Your task to perform on an android device: choose inbox layout in the gmail app Image 0: 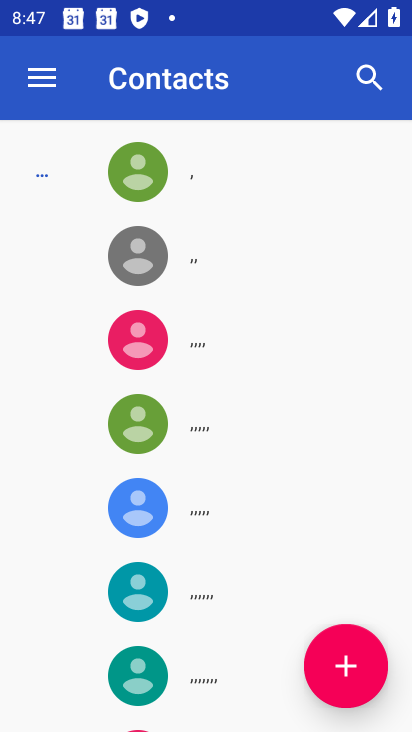
Step 0: press home button
Your task to perform on an android device: choose inbox layout in the gmail app Image 1: 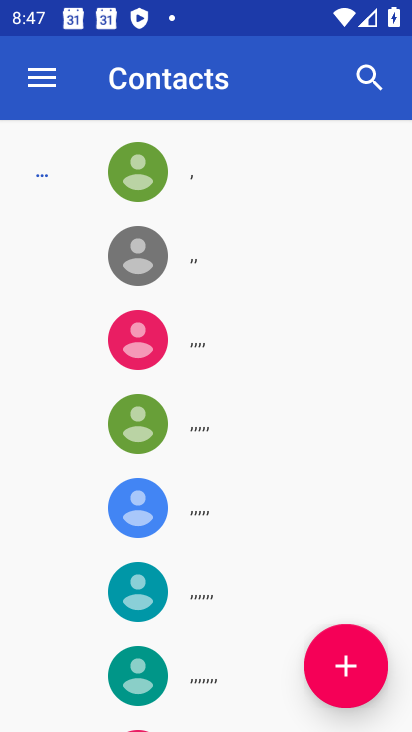
Step 1: press home button
Your task to perform on an android device: choose inbox layout in the gmail app Image 2: 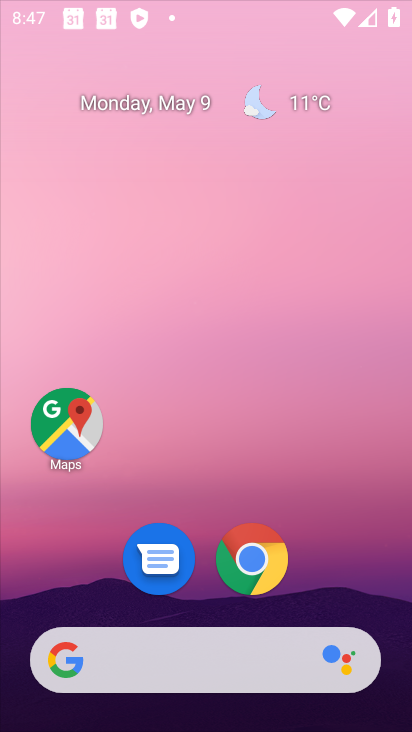
Step 2: press home button
Your task to perform on an android device: choose inbox layout in the gmail app Image 3: 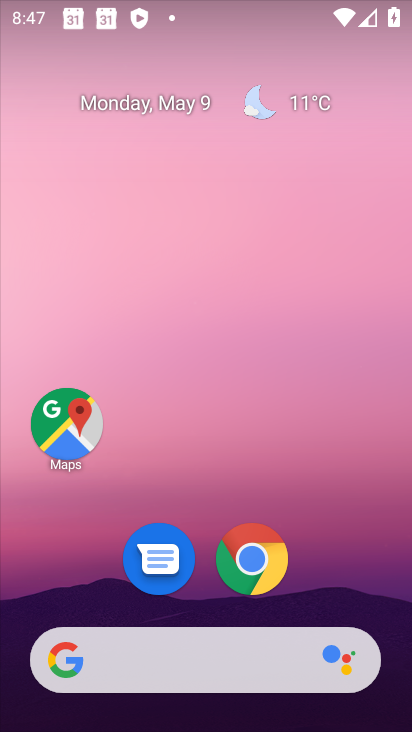
Step 3: drag from (371, 612) to (255, 100)
Your task to perform on an android device: choose inbox layout in the gmail app Image 4: 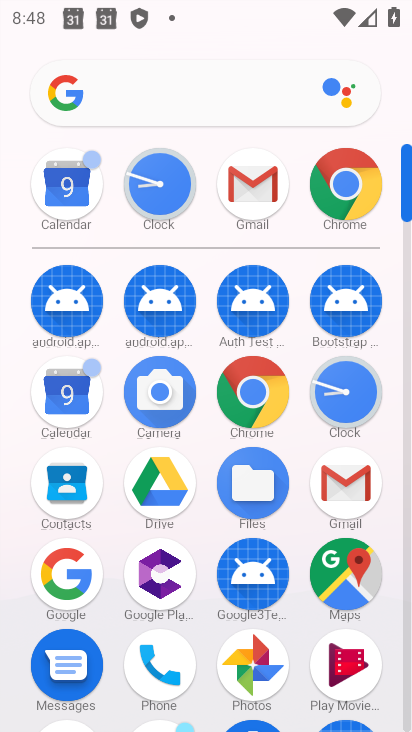
Step 4: click (336, 475)
Your task to perform on an android device: choose inbox layout in the gmail app Image 5: 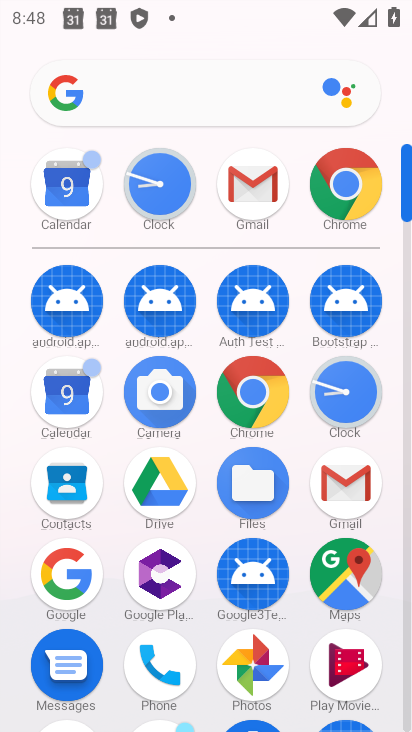
Step 5: click (336, 475)
Your task to perform on an android device: choose inbox layout in the gmail app Image 6: 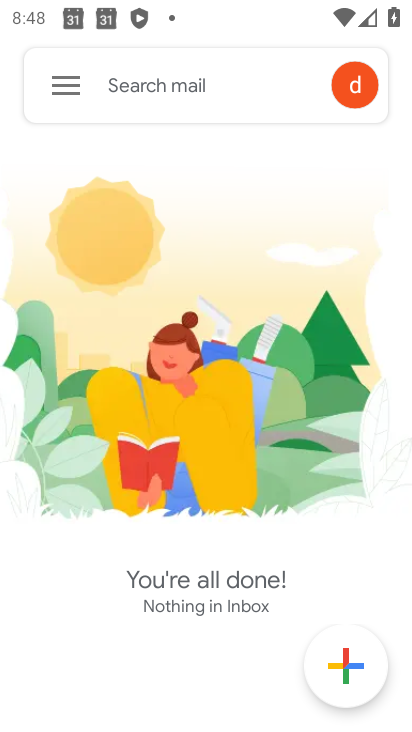
Step 6: click (72, 90)
Your task to perform on an android device: choose inbox layout in the gmail app Image 7: 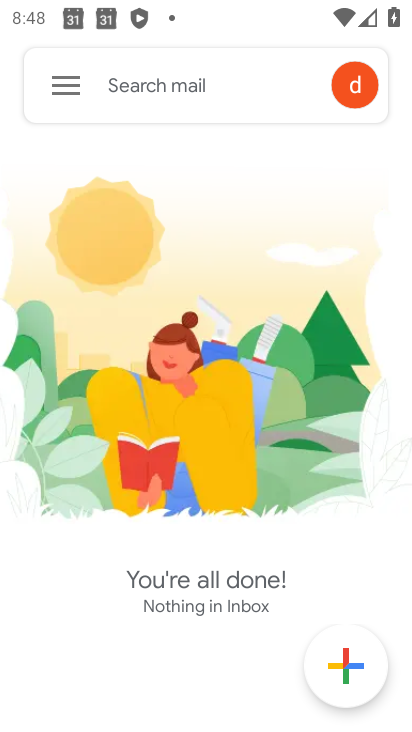
Step 7: click (72, 90)
Your task to perform on an android device: choose inbox layout in the gmail app Image 8: 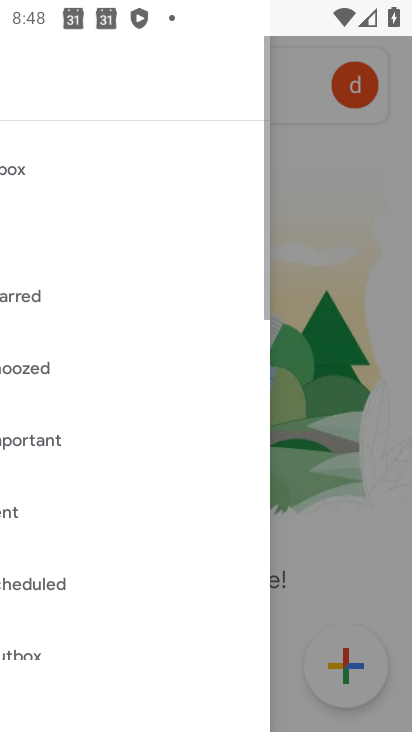
Step 8: click (72, 90)
Your task to perform on an android device: choose inbox layout in the gmail app Image 9: 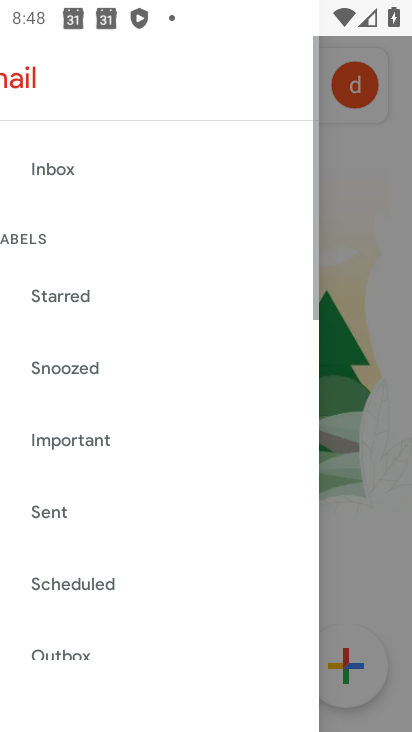
Step 9: click (72, 89)
Your task to perform on an android device: choose inbox layout in the gmail app Image 10: 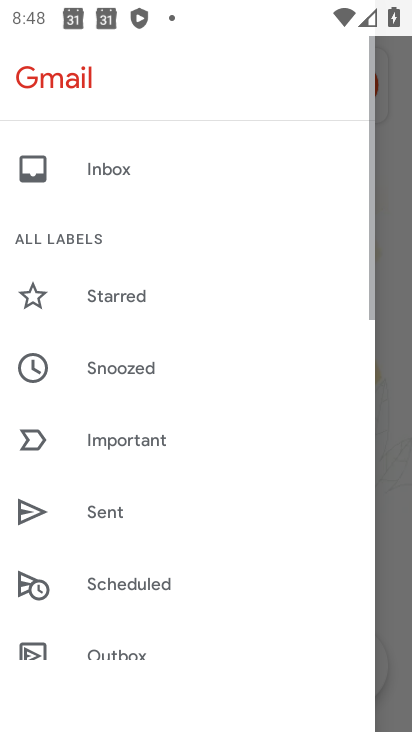
Step 10: click (72, 89)
Your task to perform on an android device: choose inbox layout in the gmail app Image 11: 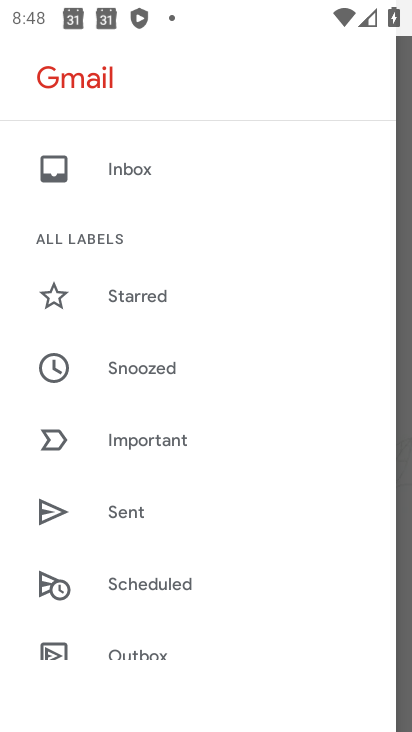
Step 11: drag from (168, 582) to (137, 131)
Your task to perform on an android device: choose inbox layout in the gmail app Image 12: 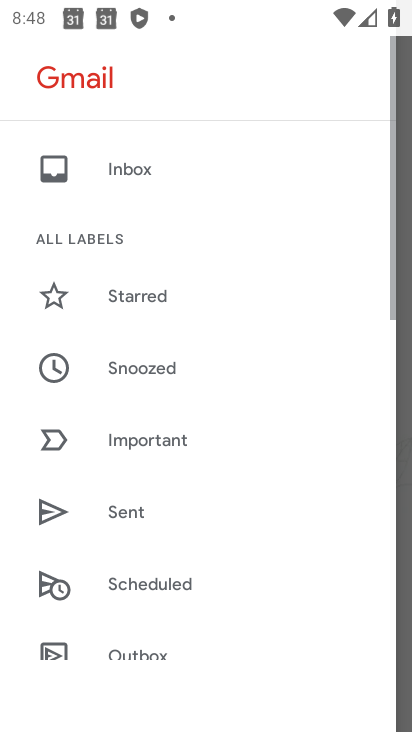
Step 12: drag from (240, 425) to (197, 105)
Your task to perform on an android device: choose inbox layout in the gmail app Image 13: 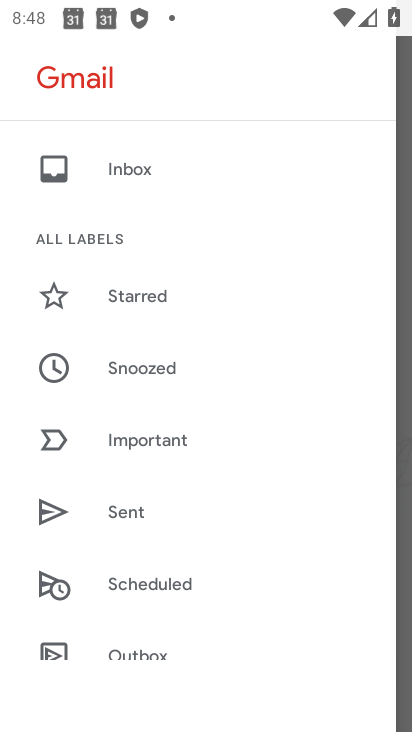
Step 13: drag from (226, 538) to (166, 206)
Your task to perform on an android device: choose inbox layout in the gmail app Image 14: 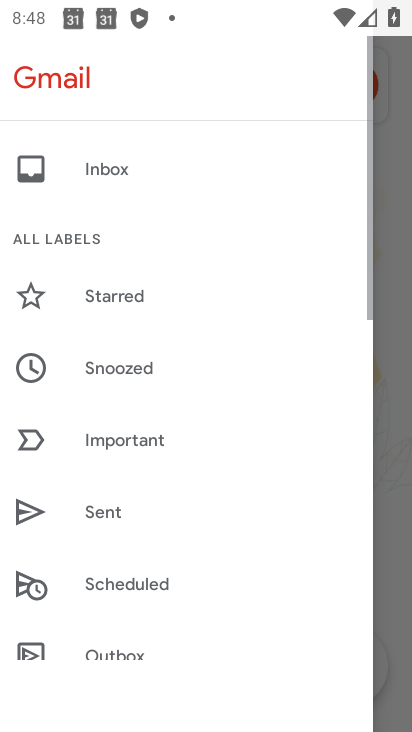
Step 14: drag from (198, 447) to (198, 158)
Your task to perform on an android device: choose inbox layout in the gmail app Image 15: 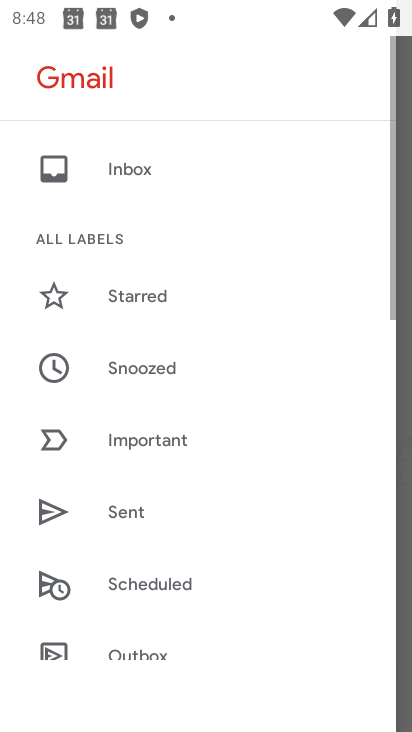
Step 15: drag from (231, 582) to (174, 147)
Your task to perform on an android device: choose inbox layout in the gmail app Image 16: 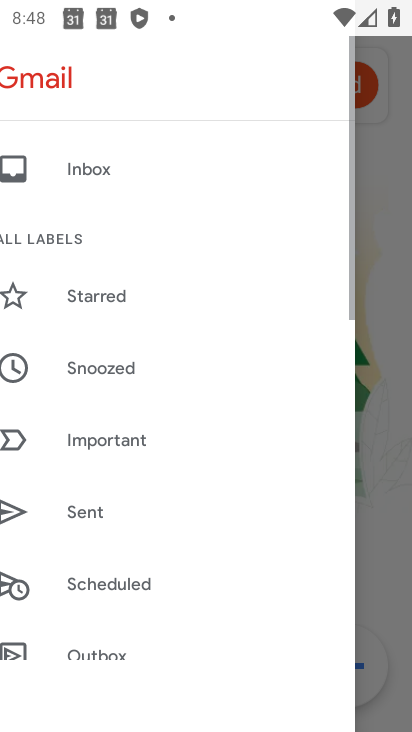
Step 16: drag from (208, 468) to (250, 194)
Your task to perform on an android device: choose inbox layout in the gmail app Image 17: 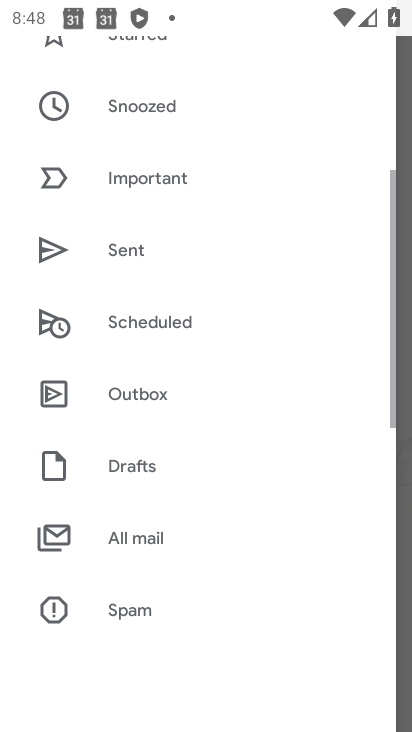
Step 17: drag from (213, 518) to (175, 94)
Your task to perform on an android device: choose inbox layout in the gmail app Image 18: 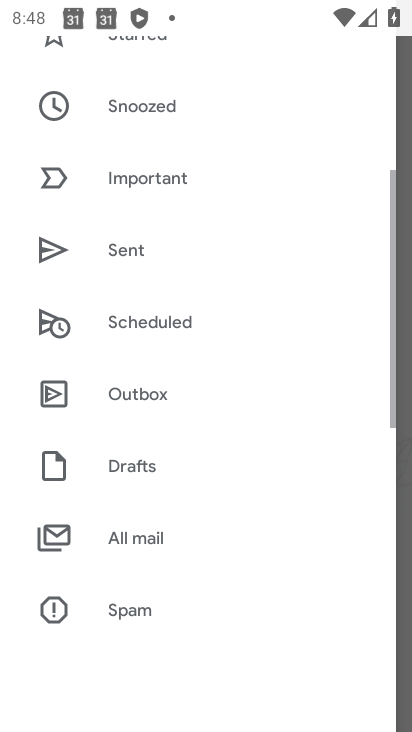
Step 18: drag from (203, 499) to (210, 95)
Your task to perform on an android device: choose inbox layout in the gmail app Image 19: 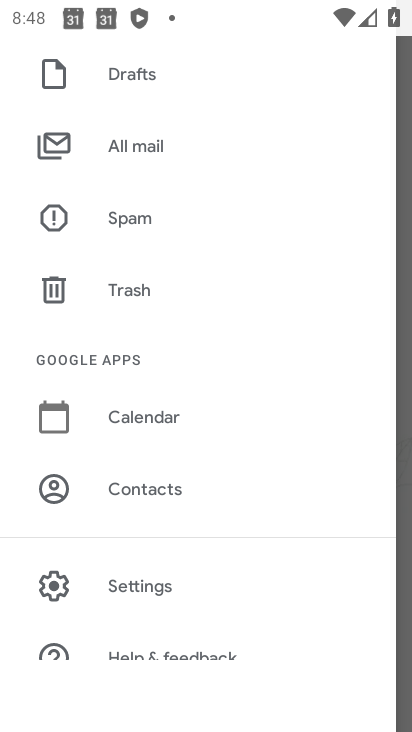
Step 19: click (139, 142)
Your task to perform on an android device: choose inbox layout in the gmail app Image 20: 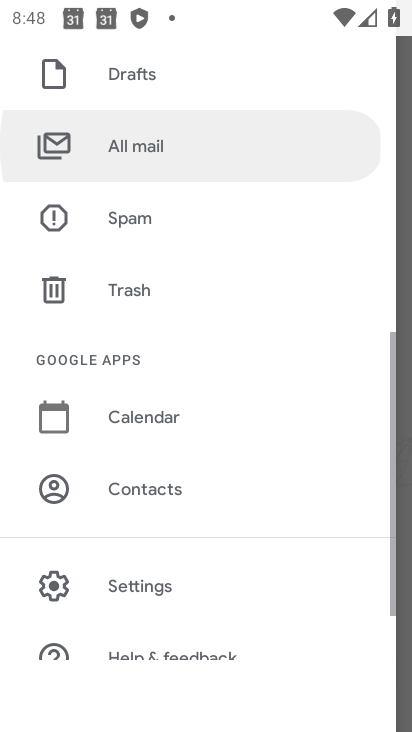
Step 20: click (139, 139)
Your task to perform on an android device: choose inbox layout in the gmail app Image 21: 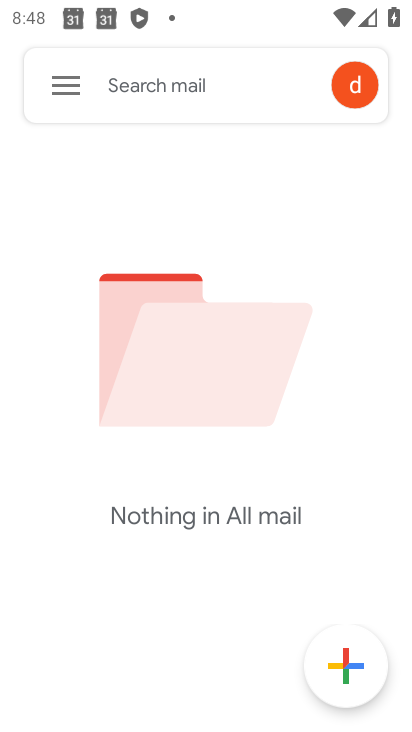
Step 21: task complete